Your task to perform on an android device: What is the recent news? Image 0: 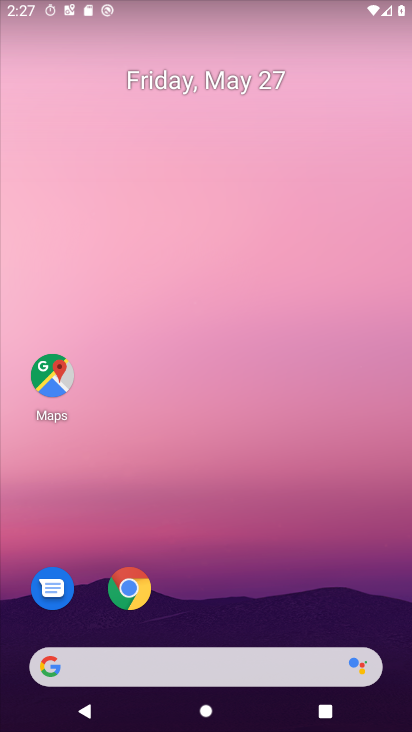
Step 0: press home button
Your task to perform on an android device: What is the recent news? Image 1: 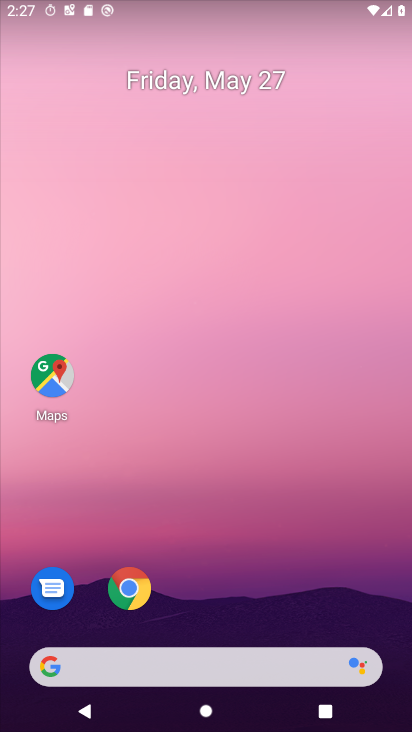
Step 1: click (199, 666)
Your task to perform on an android device: What is the recent news? Image 2: 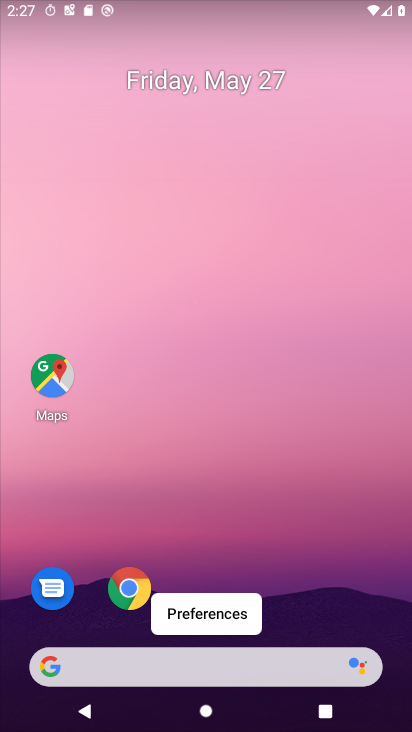
Step 2: click (198, 666)
Your task to perform on an android device: What is the recent news? Image 3: 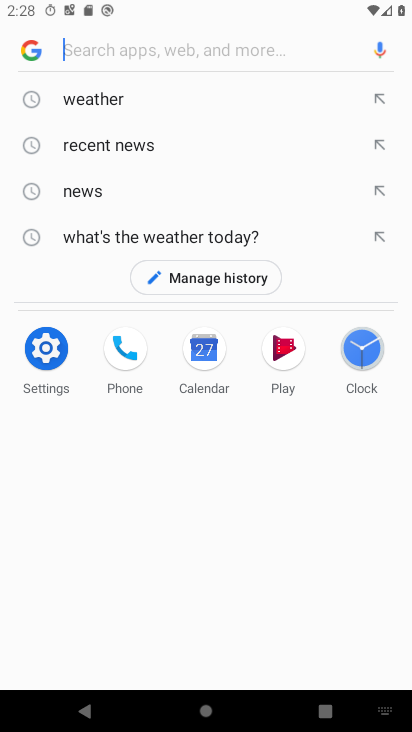
Step 3: type "what is the recent news"
Your task to perform on an android device: What is the recent news? Image 4: 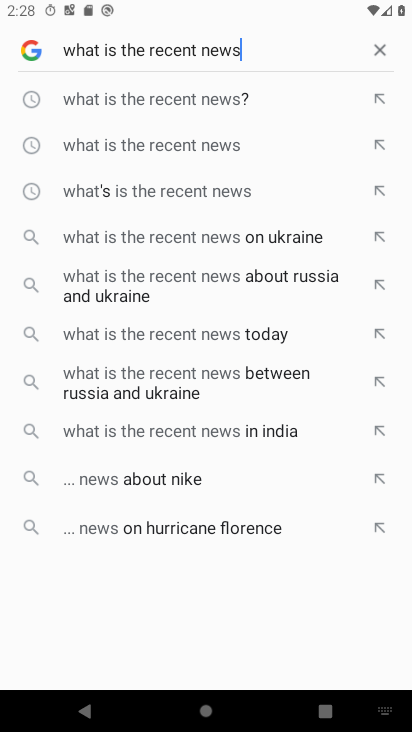
Step 4: click (179, 104)
Your task to perform on an android device: What is the recent news? Image 5: 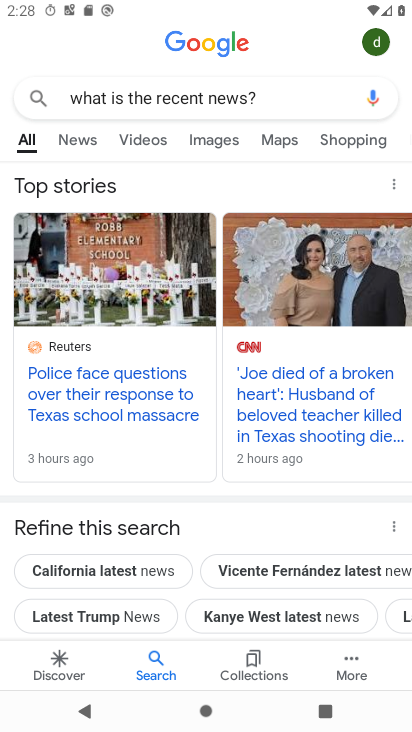
Step 5: click (90, 144)
Your task to perform on an android device: What is the recent news? Image 6: 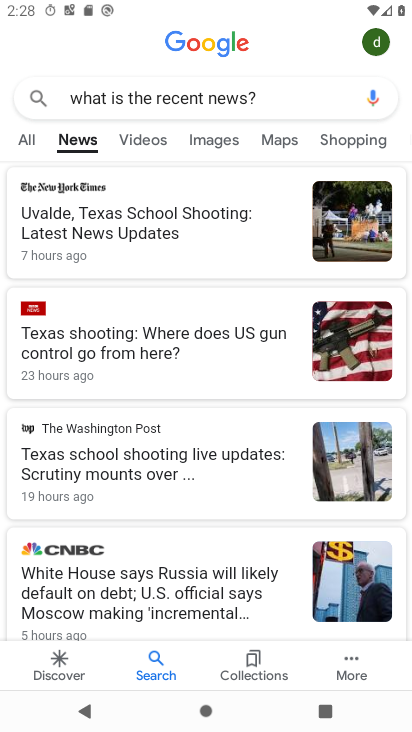
Step 6: task complete